Your task to perform on an android device: turn off airplane mode Image 0: 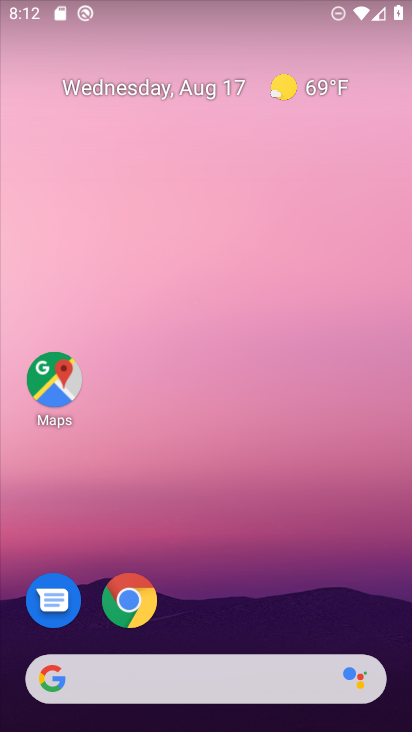
Step 0: press home button
Your task to perform on an android device: turn off airplane mode Image 1: 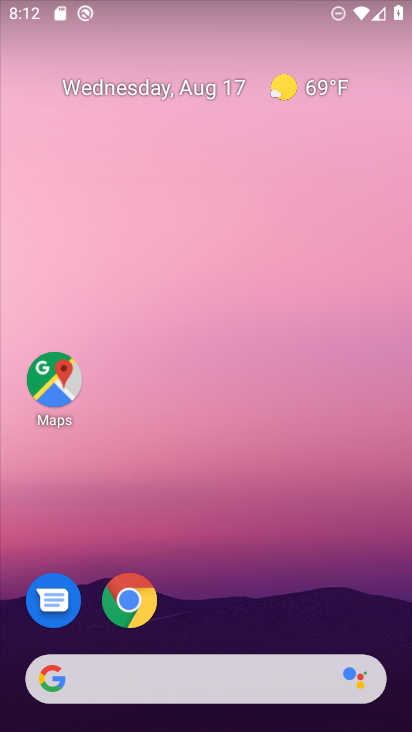
Step 1: task complete